Your task to perform on an android device: Open privacy settings Image 0: 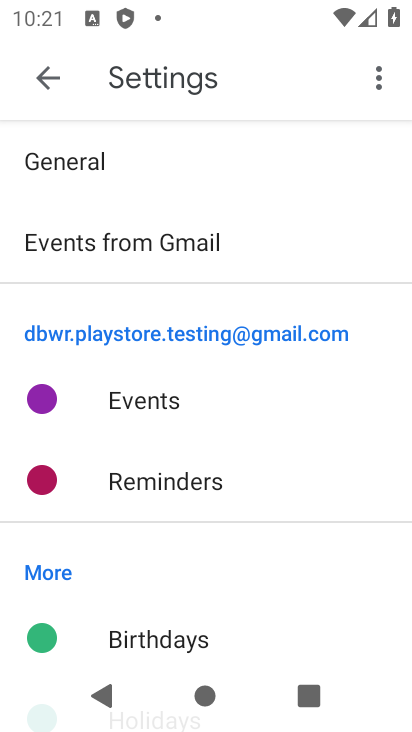
Step 0: press home button
Your task to perform on an android device: Open privacy settings Image 1: 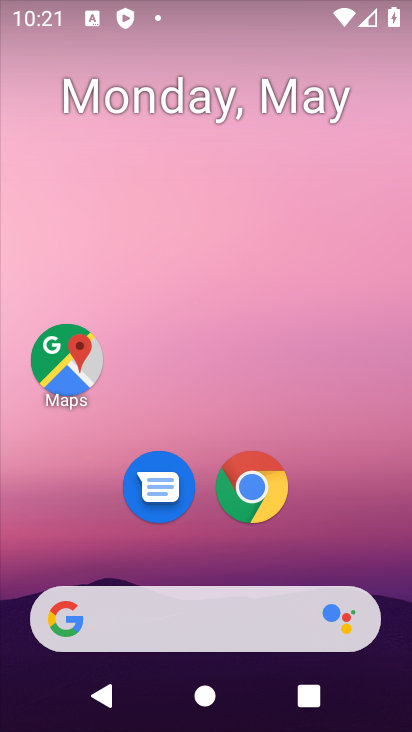
Step 1: drag from (219, 506) to (170, 186)
Your task to perform on an android device: Open privacy settings Image 2: 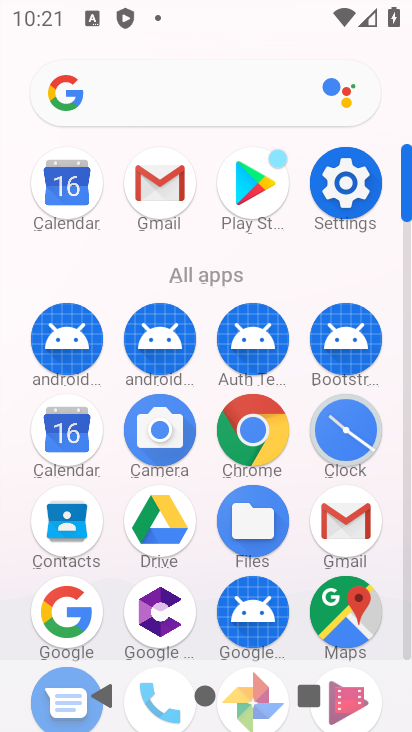
Step 2: click (356, 183)
Your task to perform on an android device: Open privacy settings Image 3: 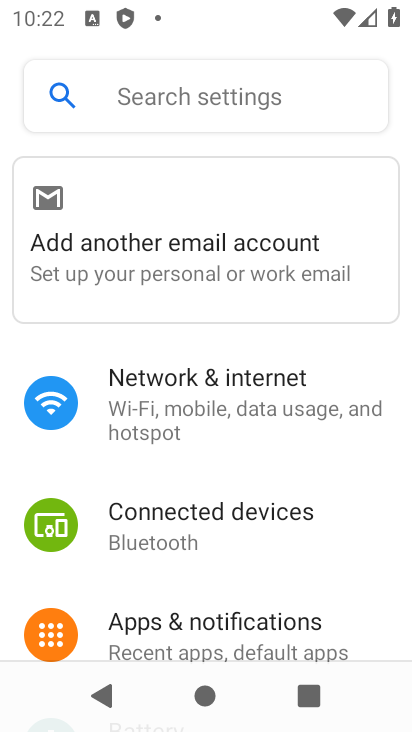
Step 3: drag from (221, 555) to (178, 51)
Your task to perform on an android device: Open privacy settings Image 4: 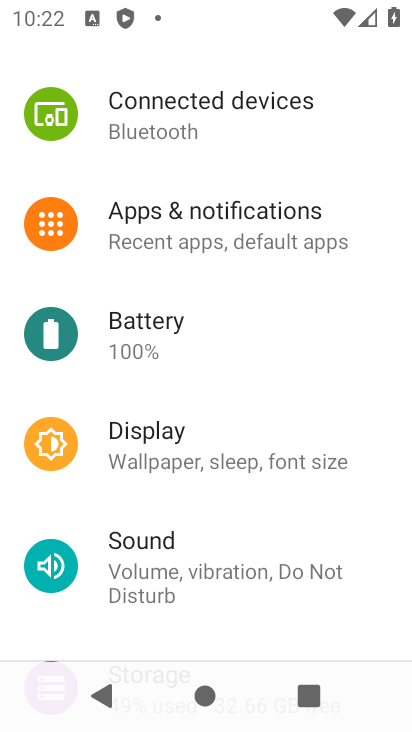
Step 4: drag from (281, 593) to (220, 201)
Your task to perform on an android device: Open privacy settings Image 5: 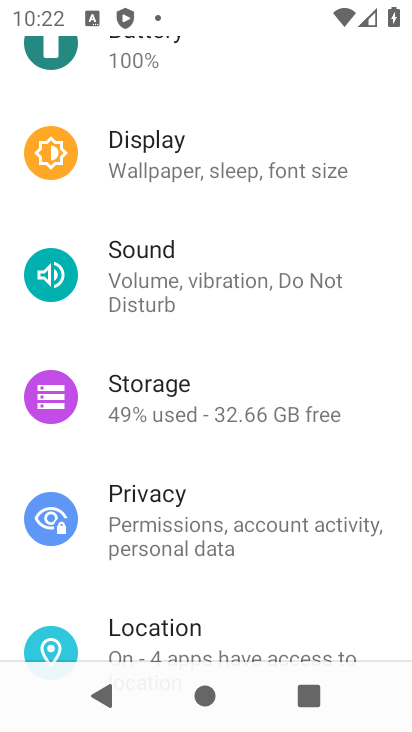
Step 5: click (258, 523)
Your task to perform on an android device: Open privacy settings Image 6: 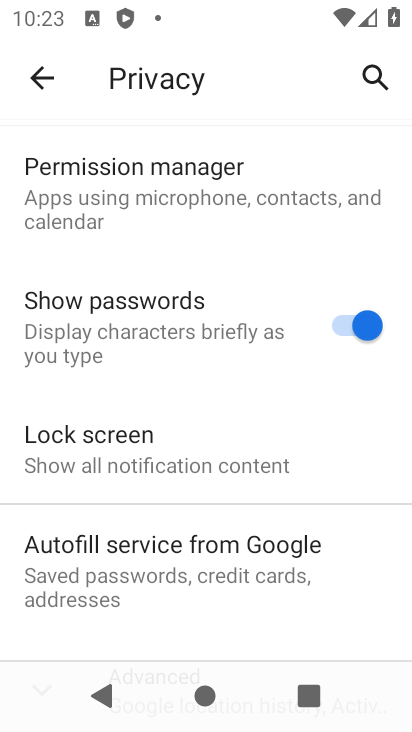
Step 6: task complete